Your task to perform on an android device: turn on priority inbox in the gmail app Image 0: 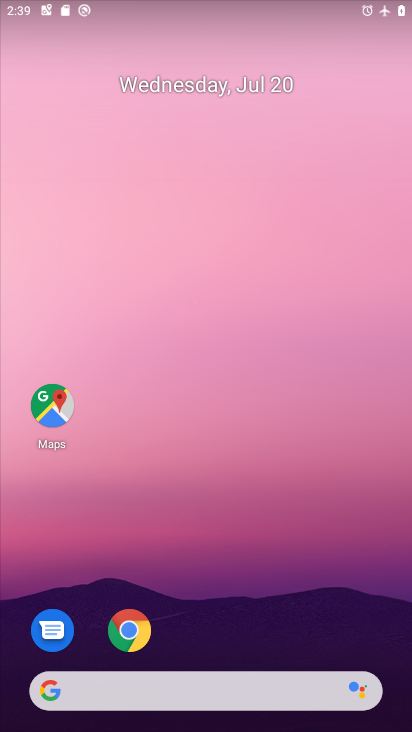
Step 0: drag from (242, 655) to (251, 213)
Your task to perform on an android device: turn on priority inbox in the gmail app Image 1: 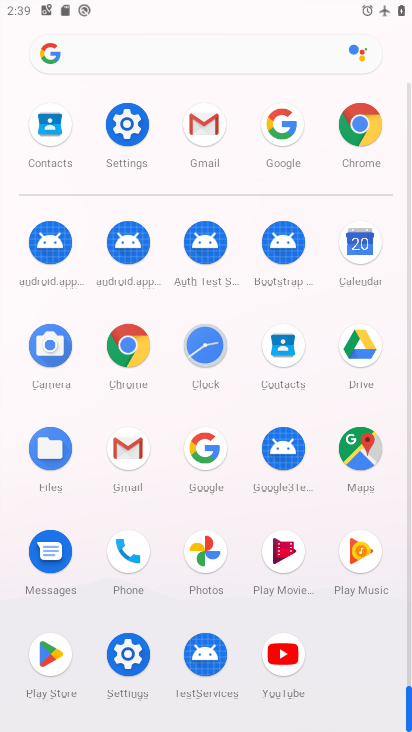
Step 1: click (125, 467)
Your task to perform on an android device: turn on priority inbox in the gmail app Image 2: 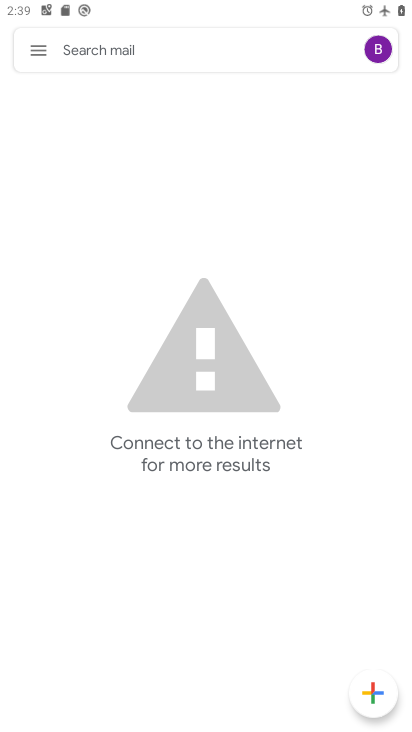
Step 2: click (37, 56)
Your task to perform on an android device: turn on priority inbox in the gmail app Image 3: 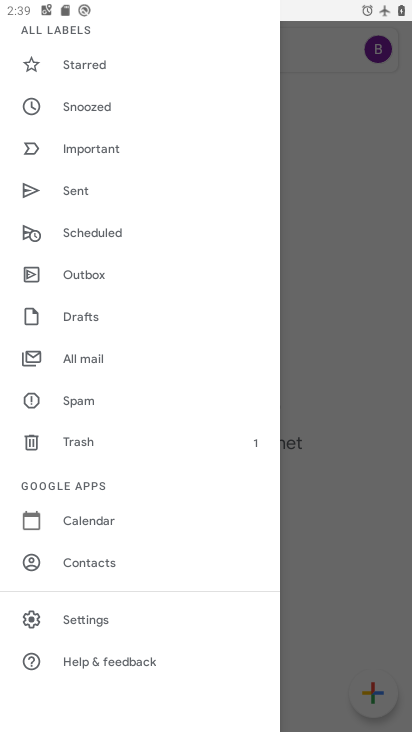
Step 3: click (77, 624)
Your task to perform on an android device: turn on priority inbox in the gmail app Image 4: 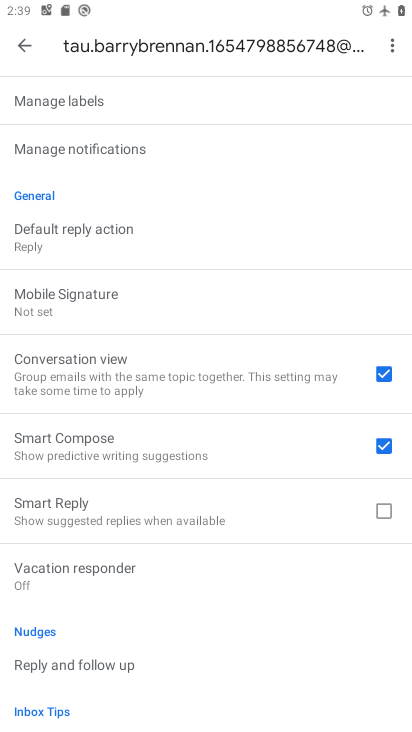
Step 4: drag from (77, 255) to (88, 578)
Your task to perform on an android device: turn on priority inbox in the gmail app Image 5: 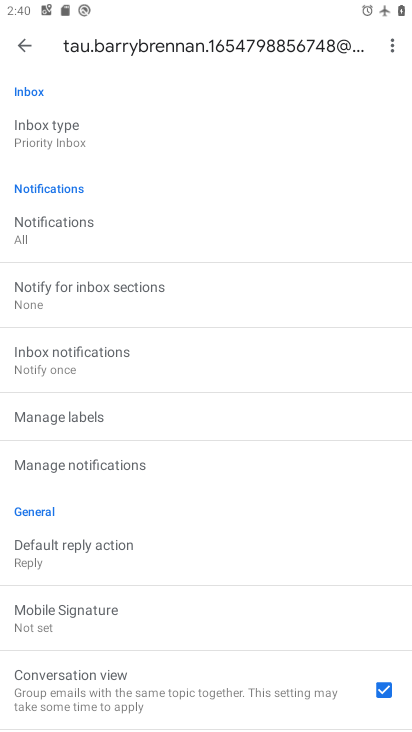
Step 5: click (77, 139)
Your task to perform on an android device: turn on priority inbox in the gmail app Image 6: 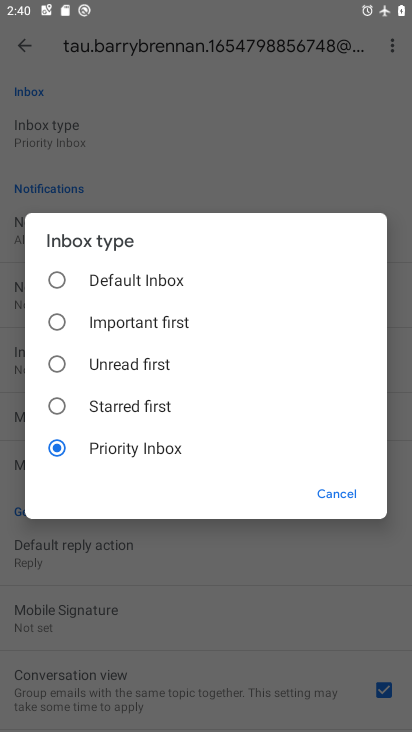
Step 6: task complete